Your task to perform on an android device: uninstall "Pluto TV - Live TV and Movies" Image 0: 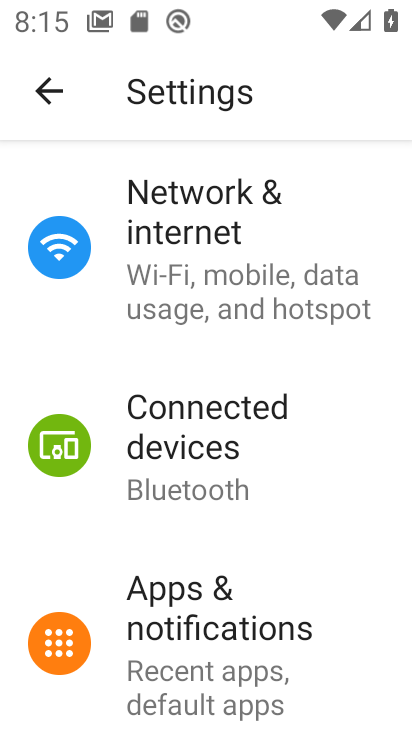
Step 0: press home button
Your task to perform on an android device: uninstall "Pluto TV - Live TV and Movies" Image 1: 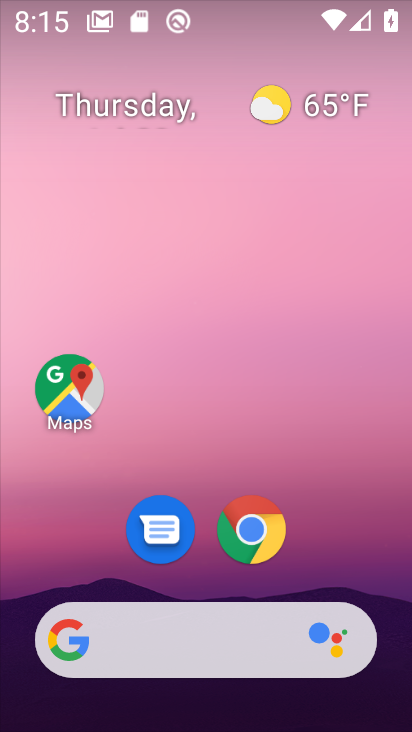
Step 1: drag from (231, 671) to (182, 172)
Your task to perform on an android device: uninstall "Pluto TV - Live TV and Movies" Image 2: 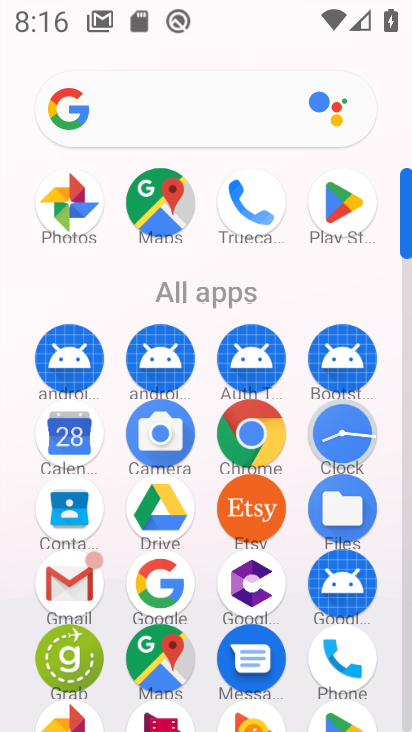
Step 2: click (337, 203)
Your task to perform on an android device: uninstall "Pluto TV - Live TV and Movies" Image 3: 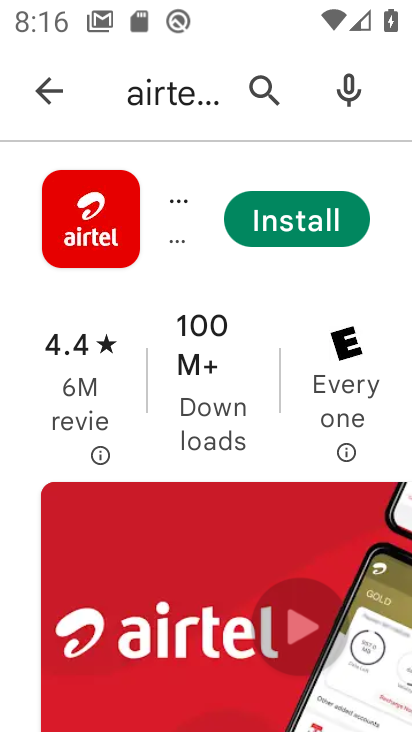
Step 3: click (258, 88)
Your task to perform on an android device: uninstall "Pluto TV - Live TV and Movies" Image 4: 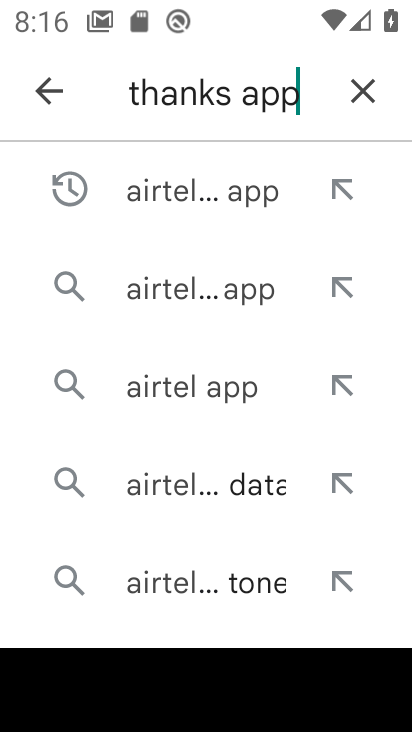
Step 4: click (370, 88)
Your task to perform on an android device: uninstall "Pluto TV - Live TV and Movies" Image 5: 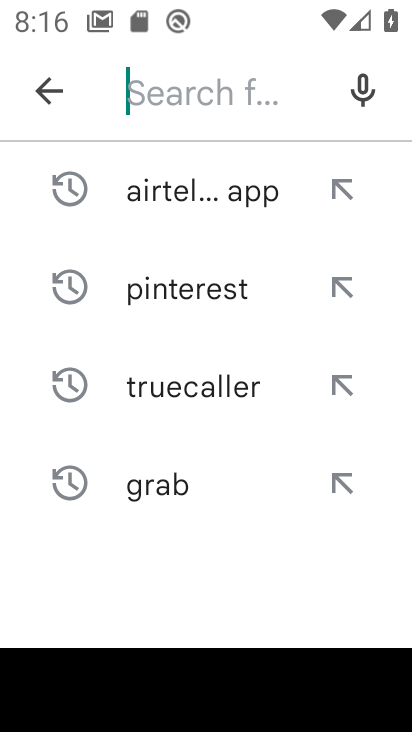
Step 5: type "Pluto TV - Live TV and Movies"
Your task to perform on an android device: uninstall "Pluto TV - Live TV and Movies" Image 6: 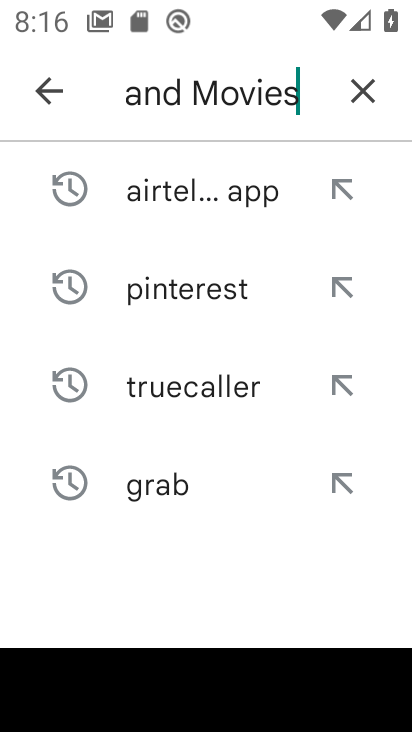
Step 6: type ""
Your task to perform on an android device: uninstall "Pluto TV - Live TV and Movies" Image 7: 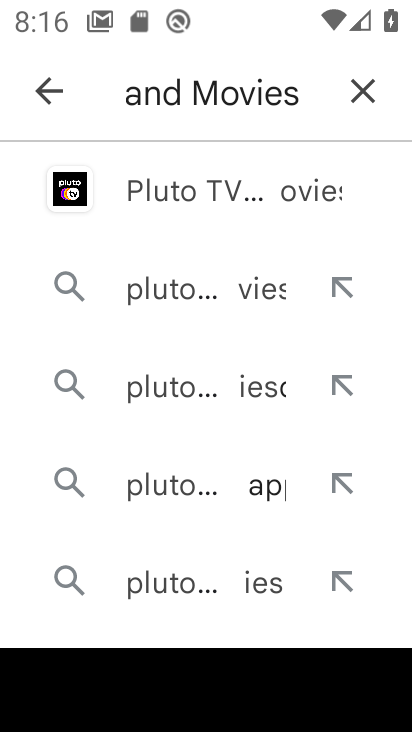
Step 7: click (190, 188)
Your task to perform on an android device: uninstall "Pluto TV - Live TV and Movies" Image 8: 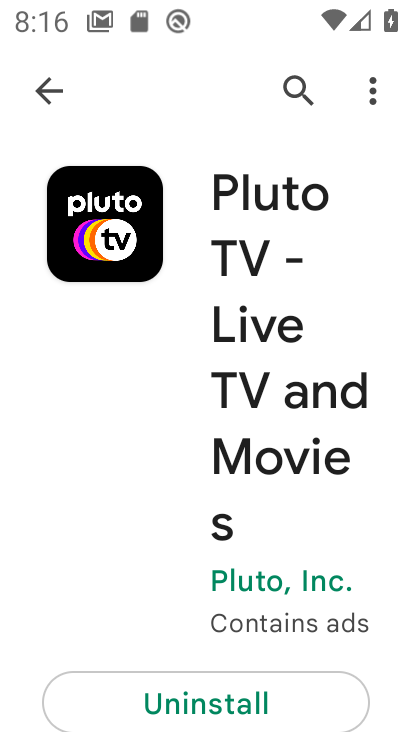
Step 8: drag from (318, 552) to (307, 353)
Your task to perform on an android device: uninstall "Pluto TV - Live TV and Movies" Image 9: 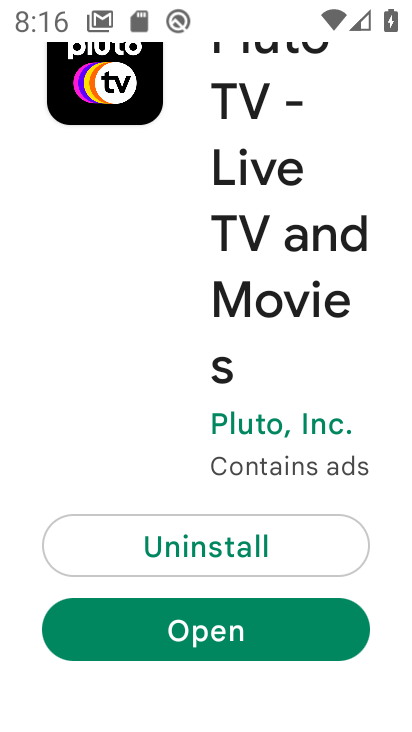
Step 9: click (187, 539)
Your task to perform on an android device: uninstall "Pluto TV - Live TV and Movies" Image 10: 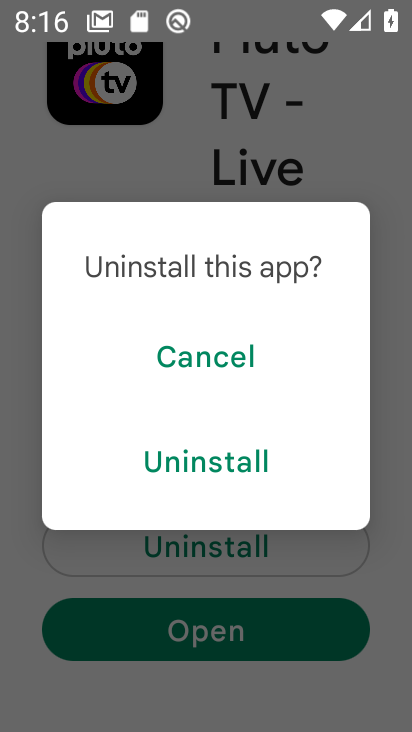
Step 10: click (196, 462)
Your task to perform on an android device: uninstall "Pluto TV - Live TV and Movies" Image 11: 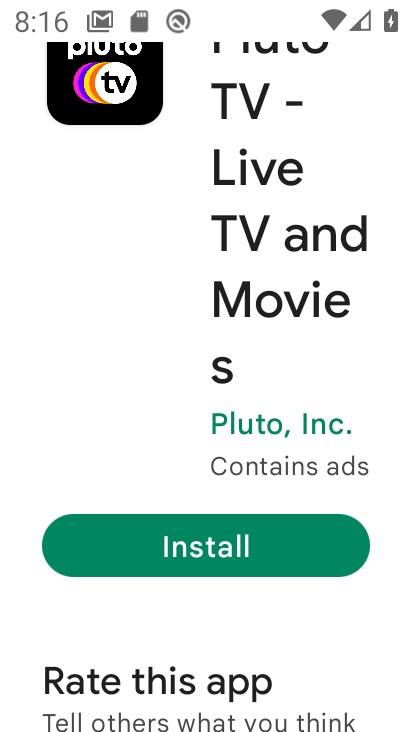
Step 11: task complete